Your task to perform on an android device: toggle airplane mode Image 0: 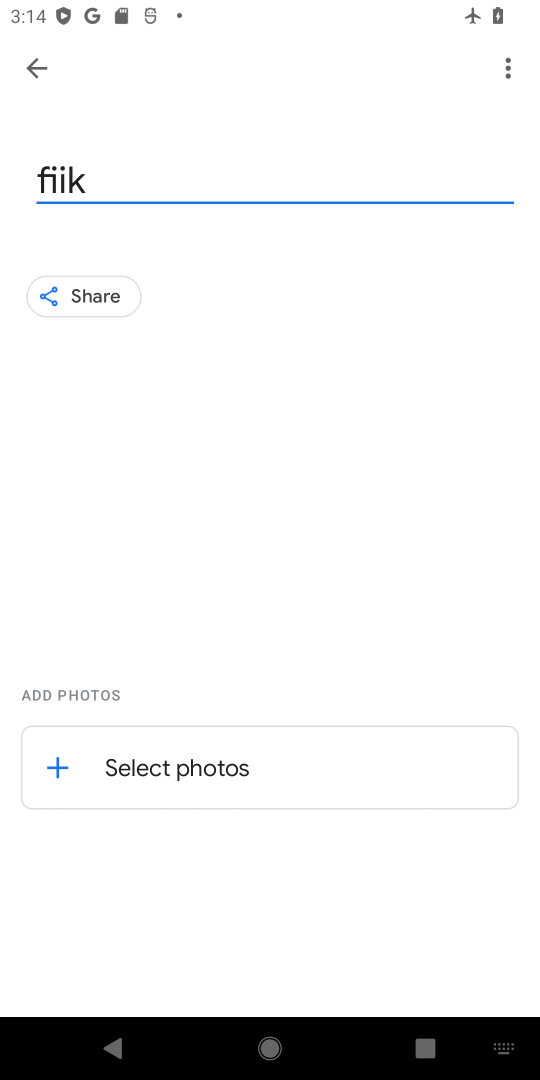
Step 0: press home button
Your task to perform on an android device: toggle airplane mode Image 1: 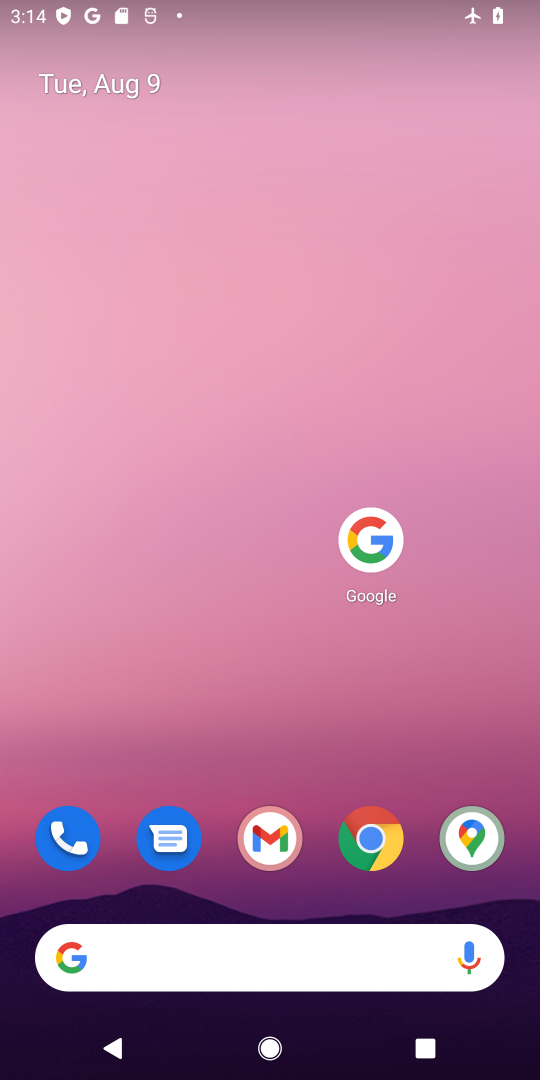
Step 1: drag from (239, 715) to (196, 3)
Your task to perform on an android device: toggle airplane mode Image 2: 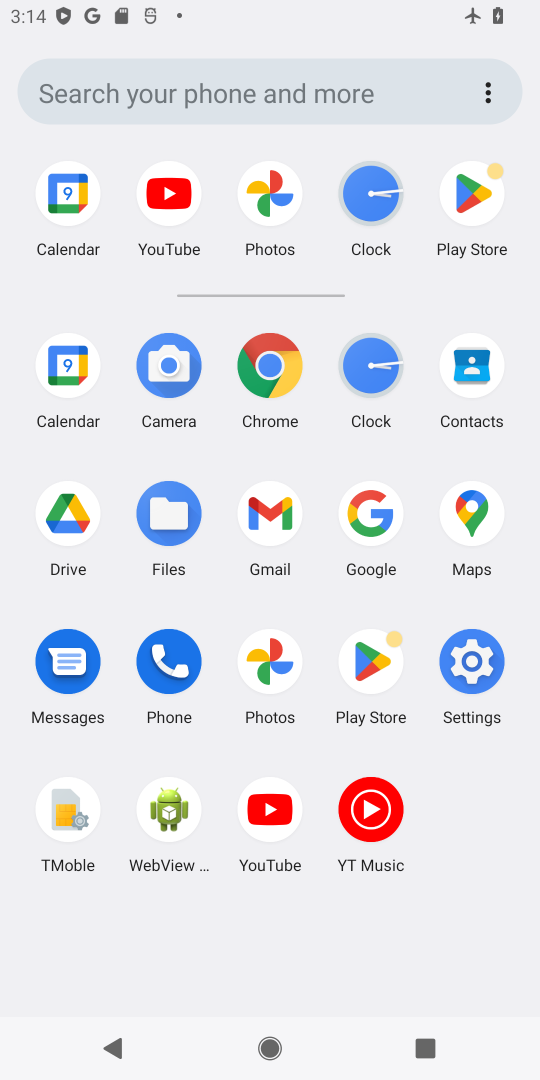
Step 2: click (444, 651)
Your task to perform on an android device: toggle airplane mode Image 3: 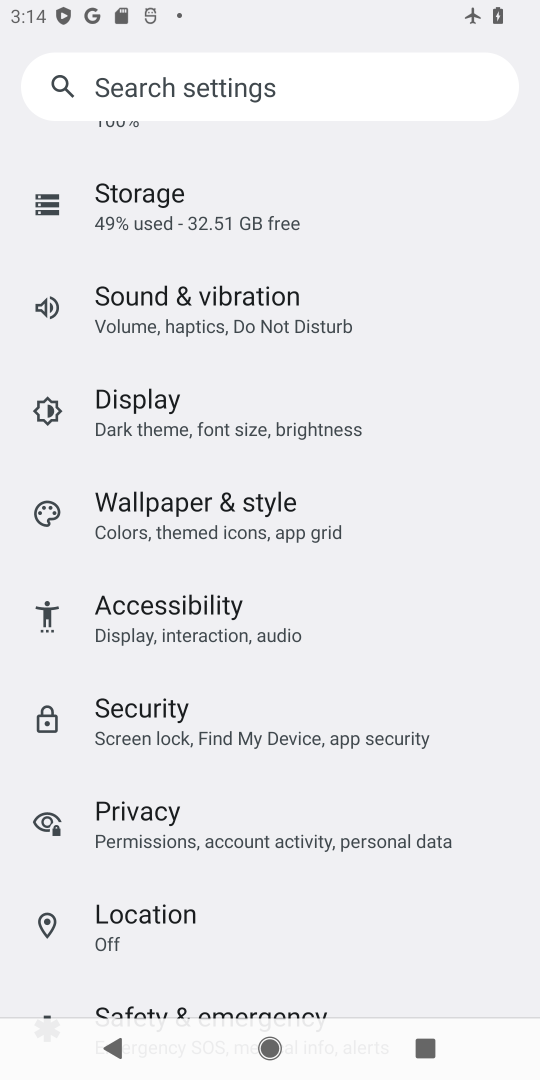
Step 3: drag from (226, 220) to (77, 885)
Your task to perform on an android device: toggle airplane mode Image 4: 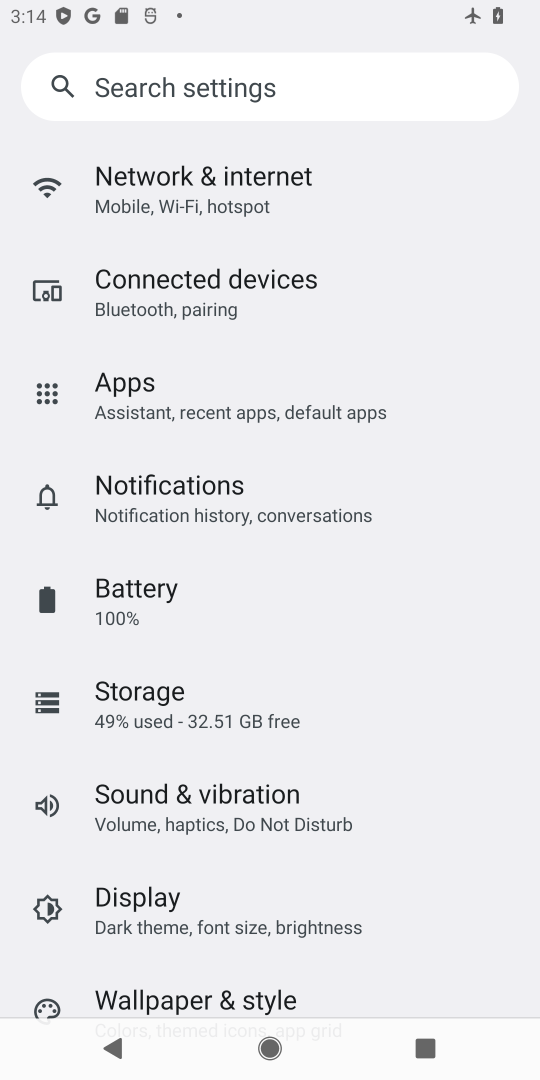
Step 4: drag from (265, 249) to (214, 633)
Your task to perform on an android device: toggle airplane mode Image 5: 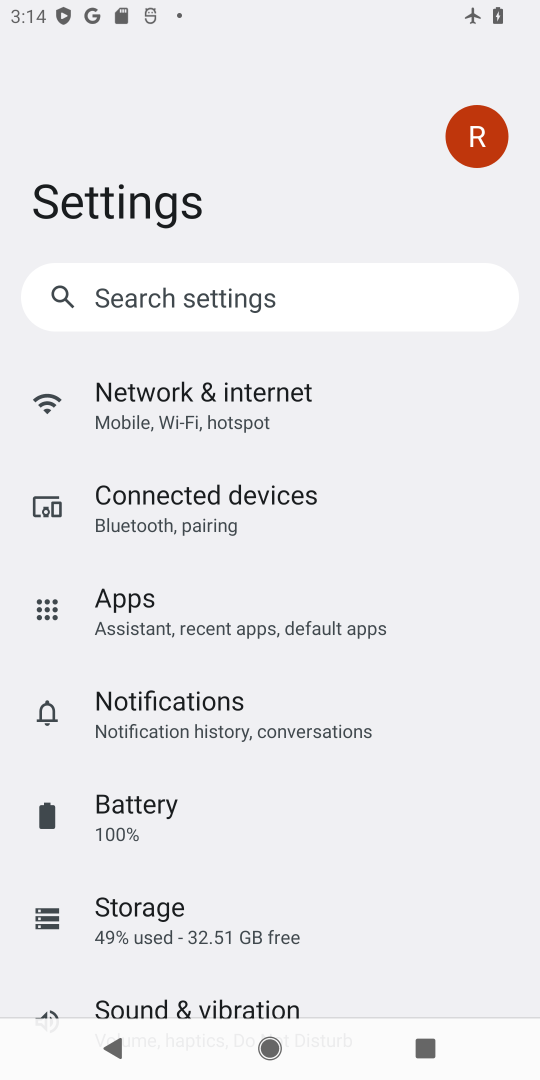
Step 5: click (193, 379)
Your task to perform on an android device: toggle airplane mode Image 6: 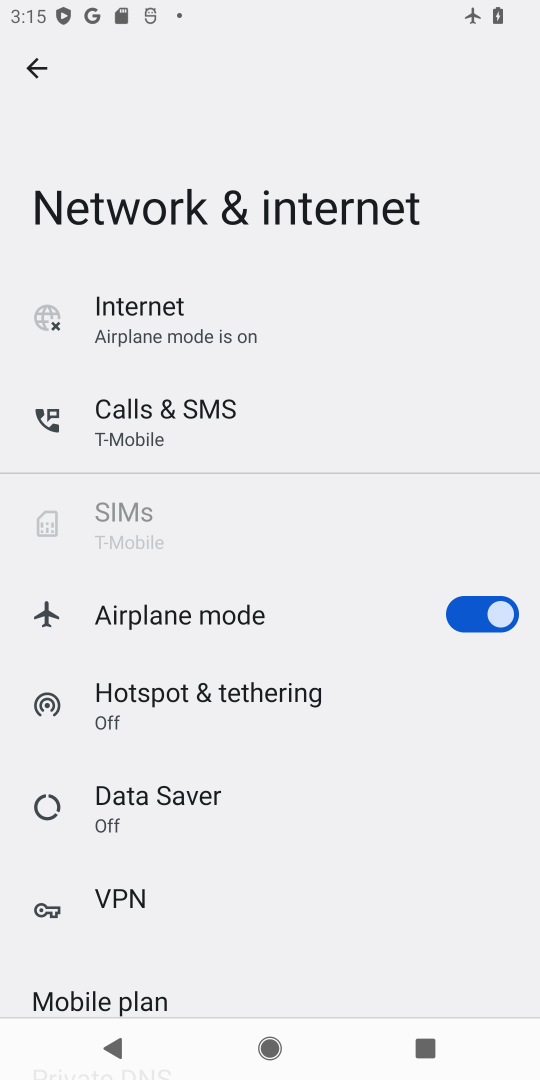
Step 6: click (464, 594)
Your task to perform on an android device: toggle airplane mode Image 7: 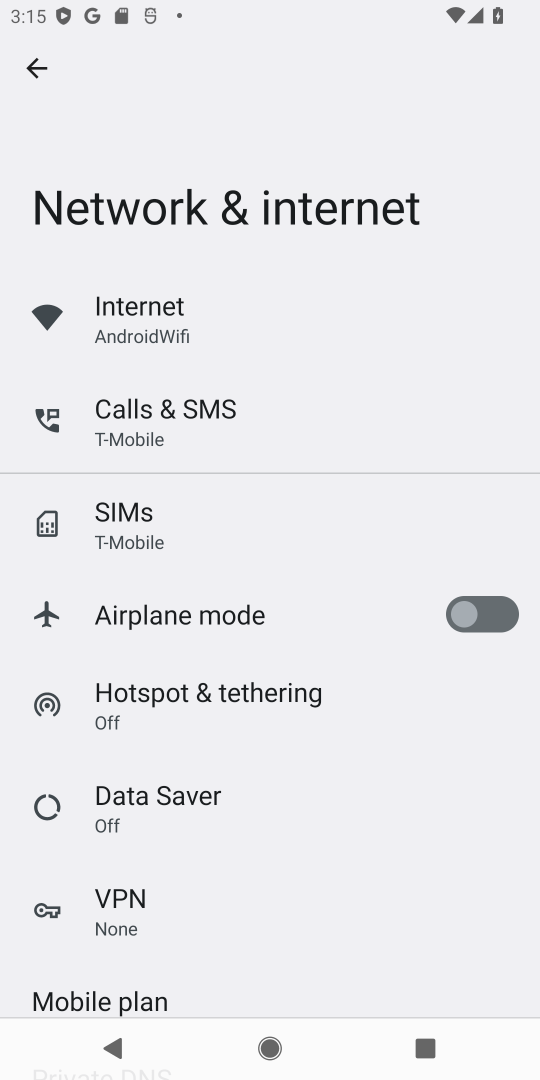
Step 7: task complete